Your task to perform on an android device: remove spam from my inbox in the gmail app Image 0: 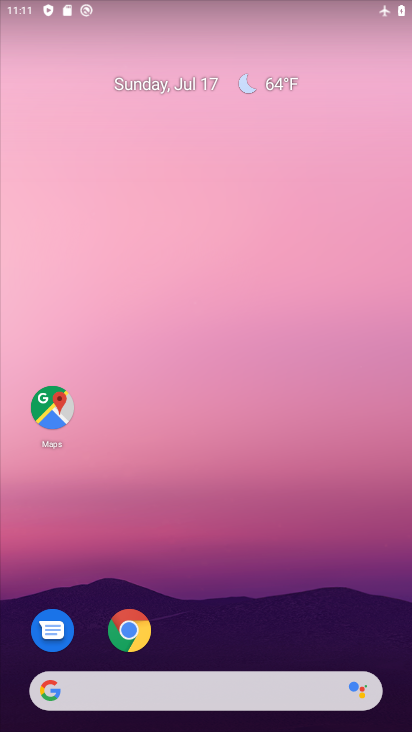
Step 0: drag from (381, 638) to (342, 58)
Your task to perform on an android device: remove spam from my inbox in the gmail app Image 1: 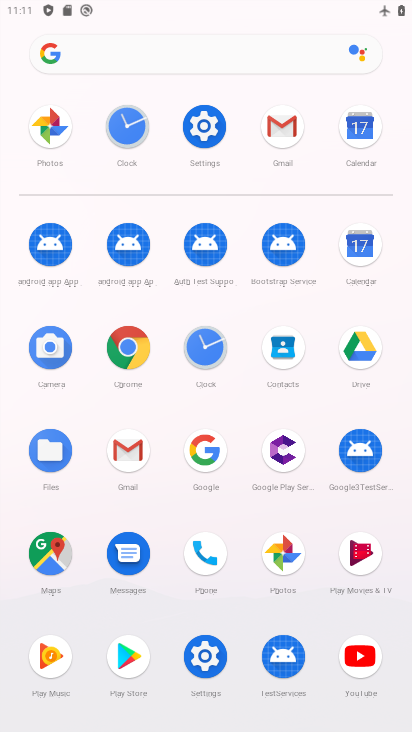
Step 1: click (124, 449)
Your task to perform on an android device: remove spam from my inbox in the gmail app Image 2: 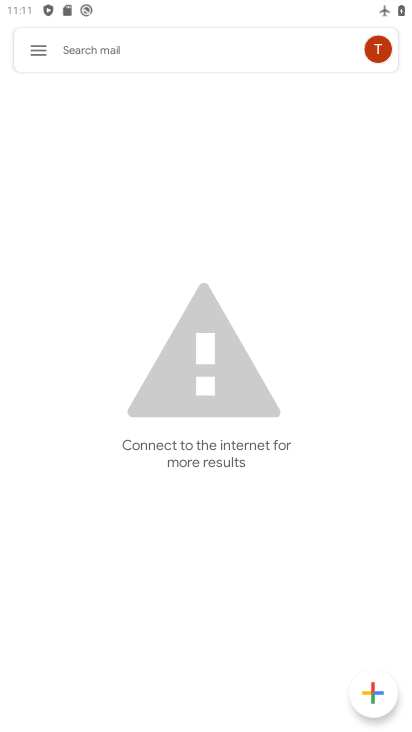
Step 2: click (32, 49)
Your task to perform on an android device: remove spam from my inbox in the gmail app Image 3: 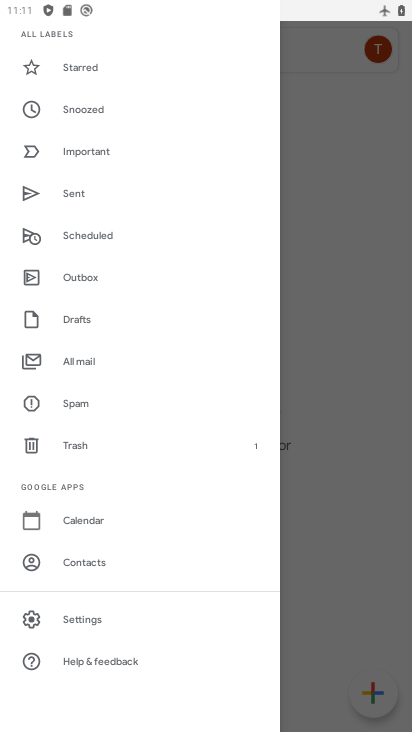
Step 3: click (80, 400)
Your task to perform on an android device: remove spam from my inbox in the gmail app Image 4: 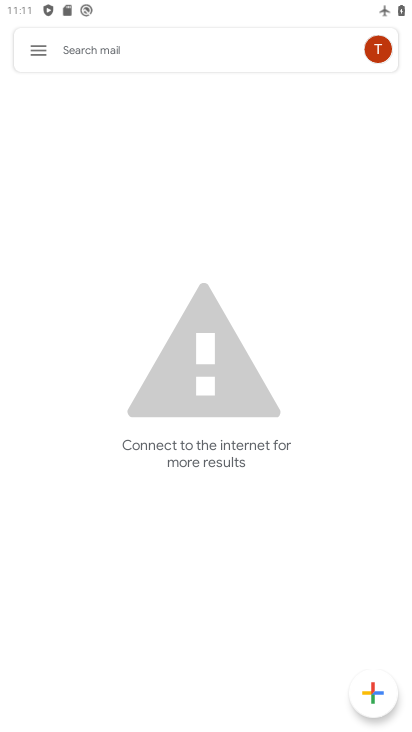
Step 4: task complete